Your task to perform on an android device: Turn off the flashlight Image 0: 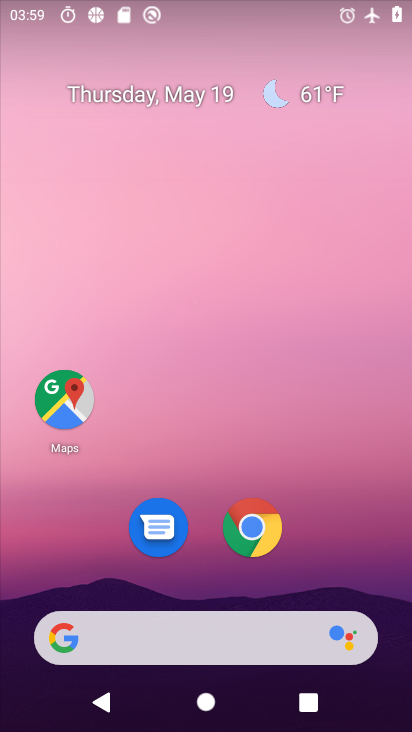
Step 0: drag from (198, 554) to (309, 65)
Your task to perform on an android device: Turn off the flashlight Image 1: 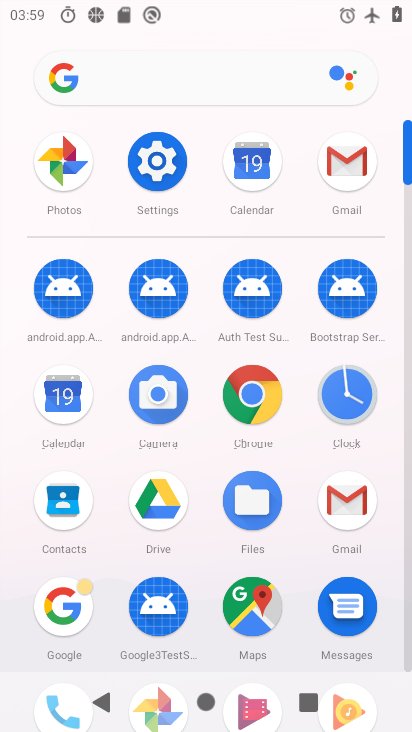
Step 1: click (166, 157)
Your task to perform on an android device: Turn off the flashlight Image 2: 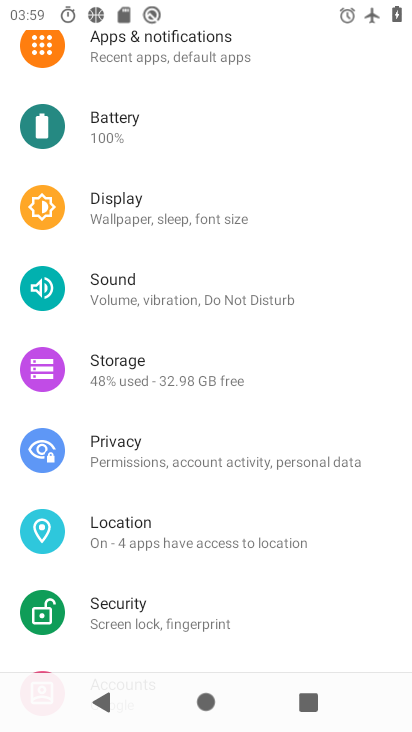
Step 2: drag from (200, 120) to (204, 717)
Your task to perform on an android device: Turn off the flashlight Image 3: 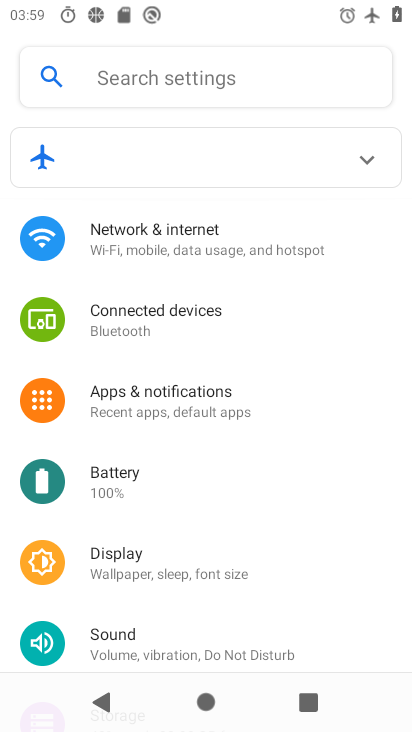
Step 3: click (127, 77)
Your task to perform on an android device: Turn off the flashlight Image 4: 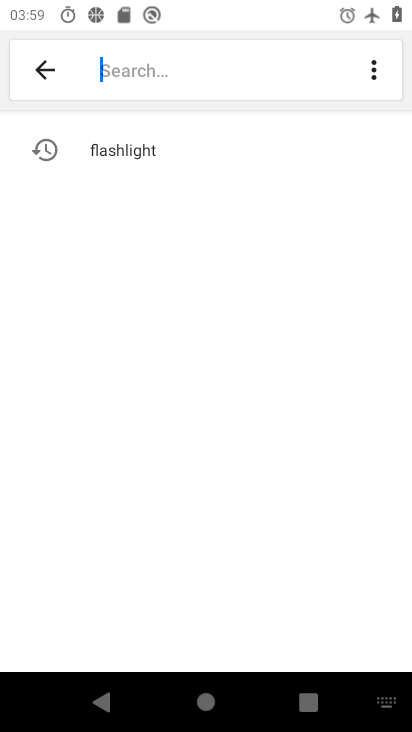
Step 4: type "flashlight"
Your task to perform on an android device: Turn off the flashlight Image 5: 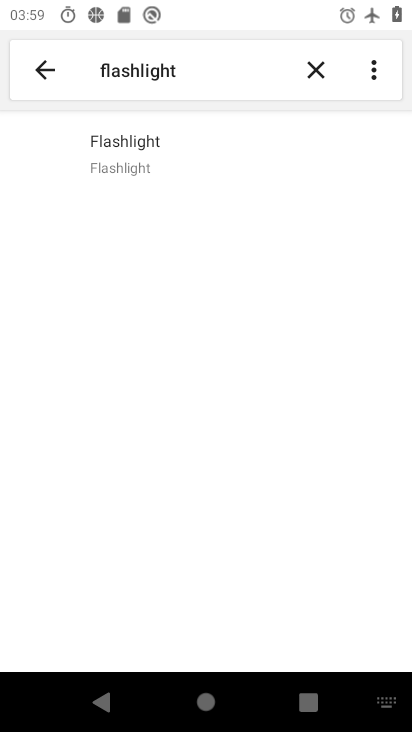
Step 5: click (153, 155)
Your task to perform on an android device: Turn off the flashlight Image 6: 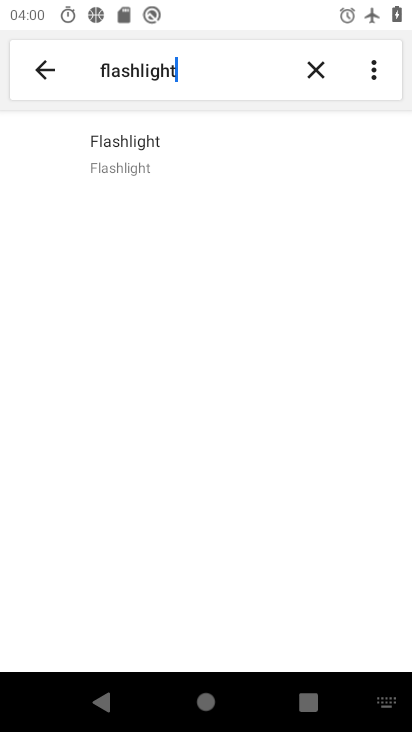
Step 6: click (154, 147)
Your task to perform on an android device: Turn off the flashlight Image 7: 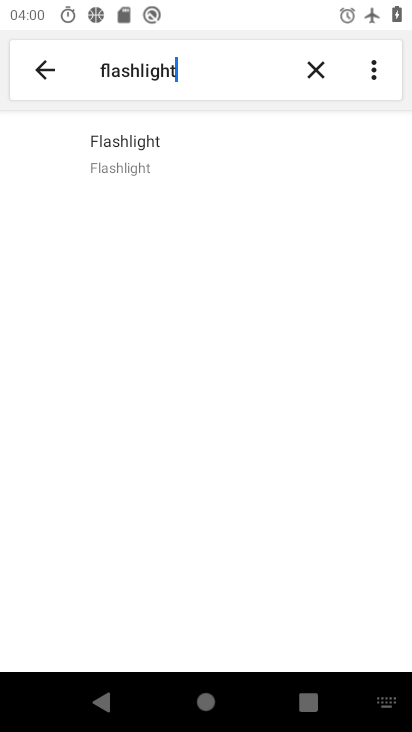
Step 7: task complete